Your task to perform on an android device: check battery use Image 0: 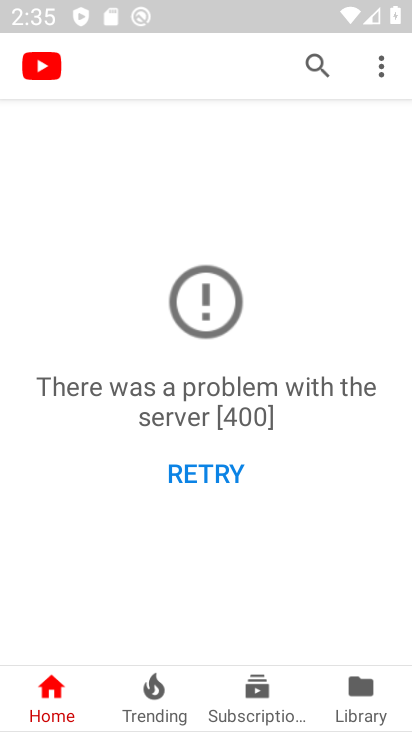
Step 0: press home button
Your task to perform on an android device: check battery use Image 1: 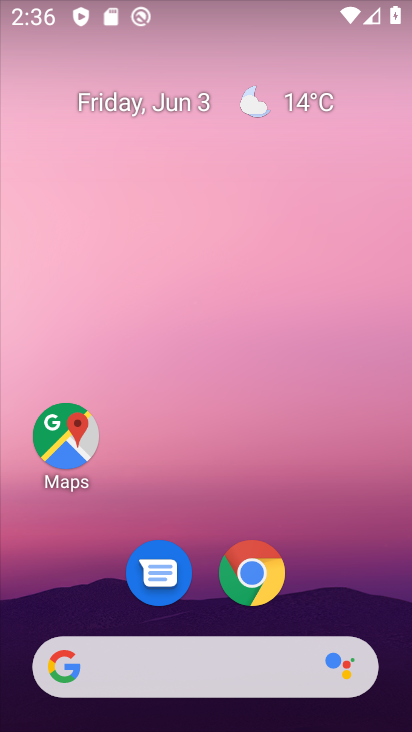
Step 1: drag from (247, 560) to (302, 32)
Your task to perform on an android device: check battery use Image 2: 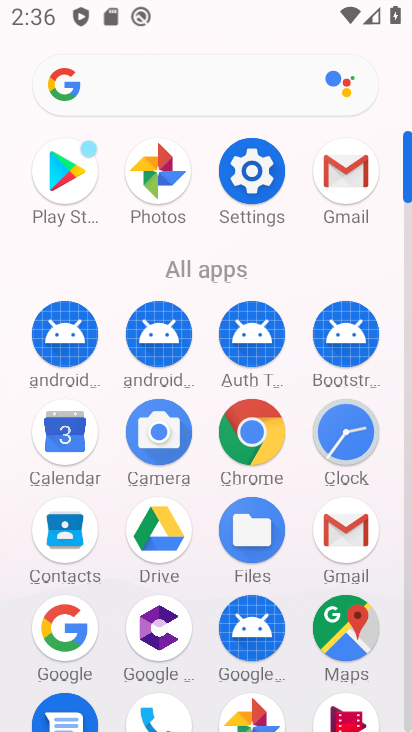
Step 2: click (275, 161)
Your task to perform on an android device: check battery use Image 3: 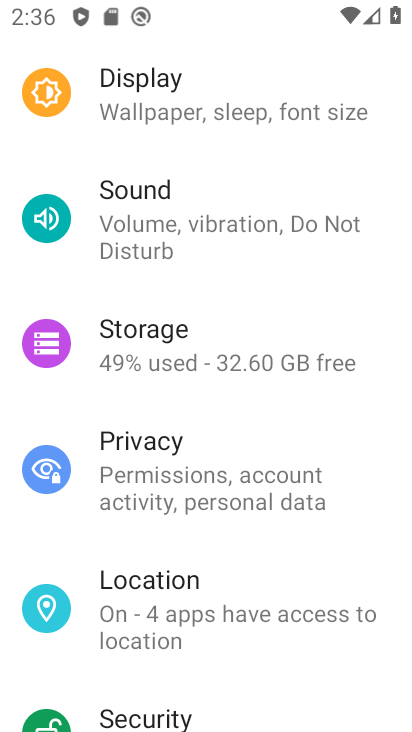
Step 3: drag from (221, 164) to (254, 663)
Your task to perform on an android device: check battery use Image 4: 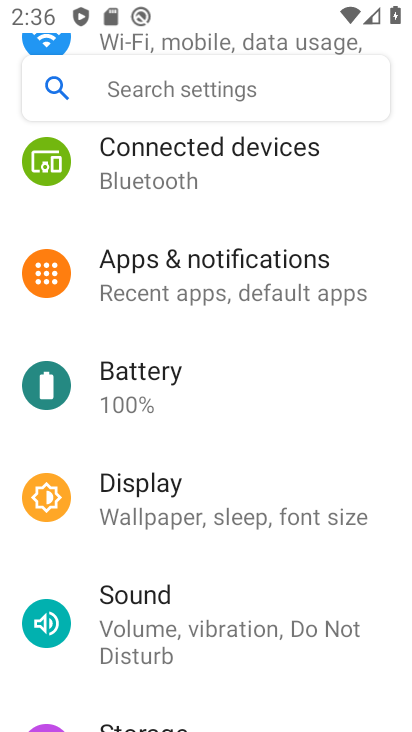
Step 4: click (148, 391)
Your task to perform on an android device: check battery use Image 5: 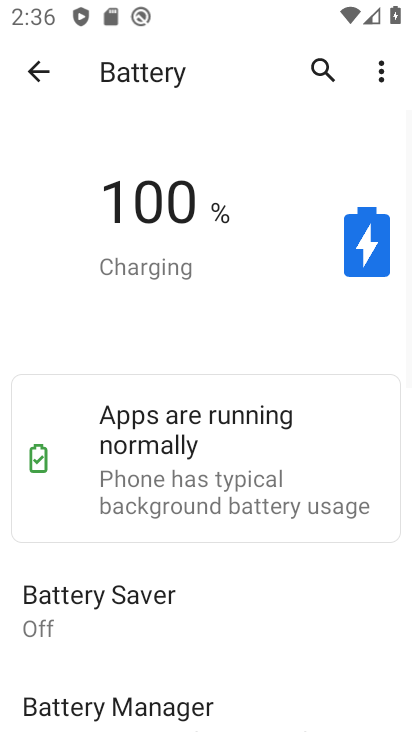
Step 5: task complete